Your task to perform on an android device: Open maps Image 0: 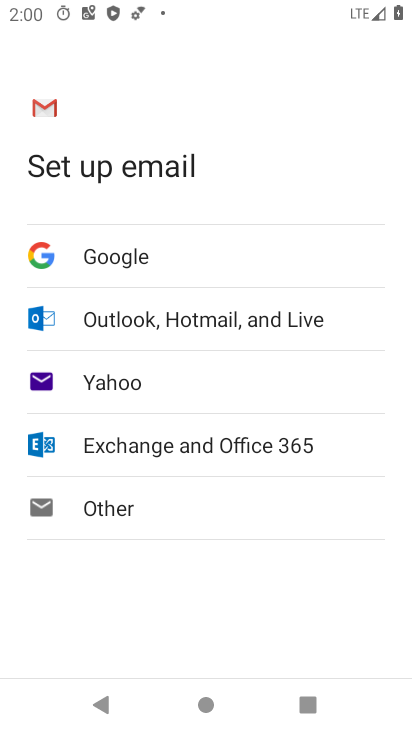
Step 0: press home button
Your task to perform on an android device: Open maps Image 1: 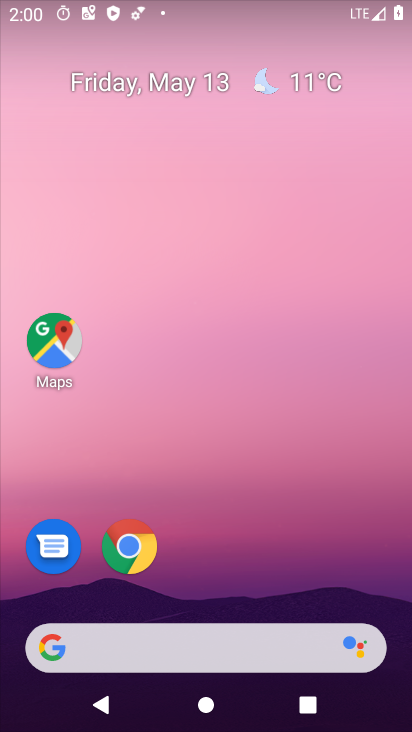
Step 1: click (45, 356)
Your task to perform on an android device: Open maps Image 2: 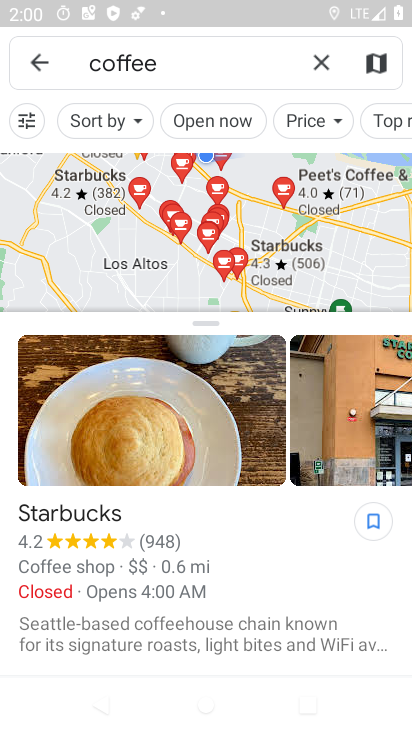
Step 2: task complete